Your task to perform on an android device: clear history in the chrome app Image 0: 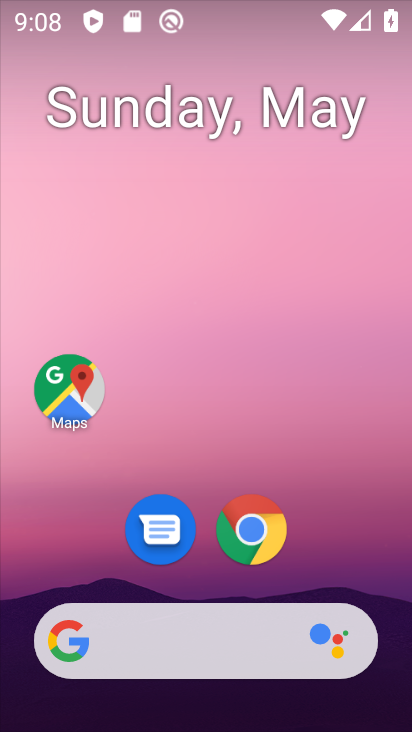
Step 0: click (259, 531)
Your task to perform on an android device: clear history in the chrome app Image 1: 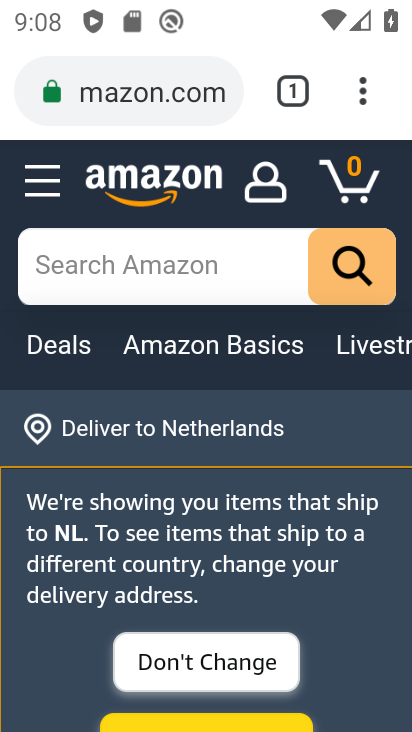
Step 1: click (350, 98)
Your task to perform on an android device: clear history in the chrome app Image 2: 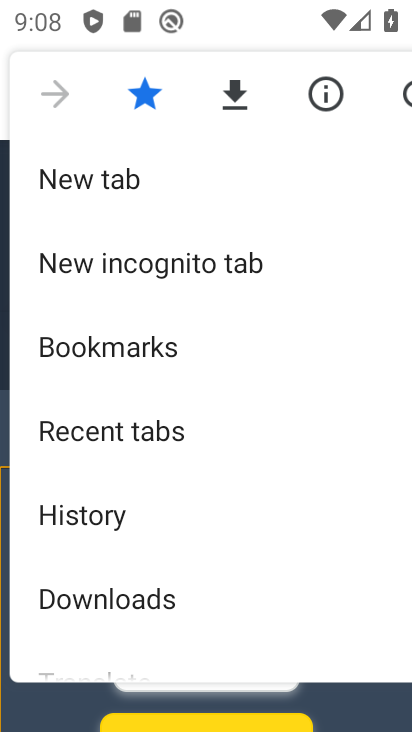
Step 2: drag from (184, 576) to (211, 155)
Your task to perform on an android device: clear history in the chrome app Image 3: 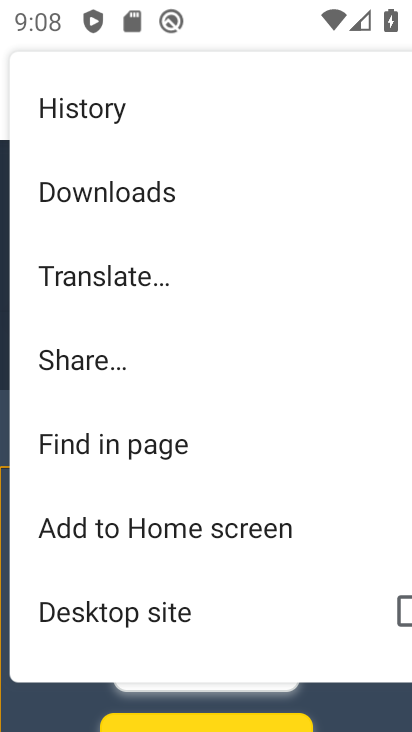
Step 3: drag from (143, 624) to (179, 271)
Your task to perform on an android device: clear history in the chrome app Image 4: 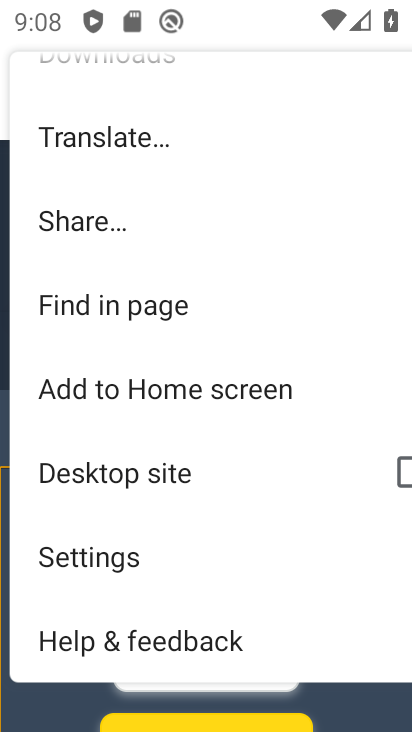
Step 4: drag from (133, 565) to (216, 345)
Your task to perform on an android device: clear history in the chrome app Image 5: 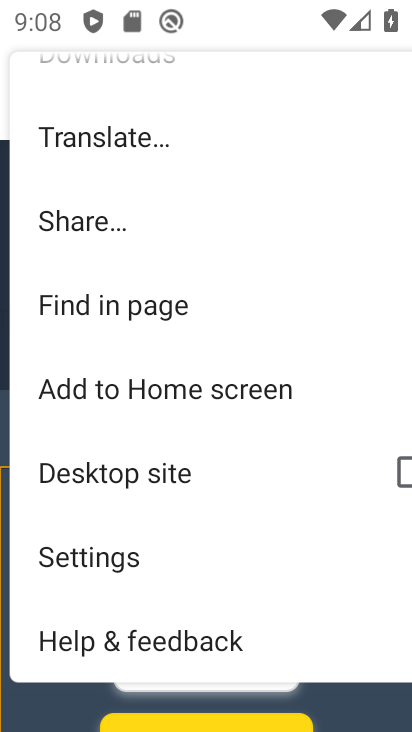
Step 5: click (121, 559)
Your task to perform on an android device: clear history in the chrome app Image 6: 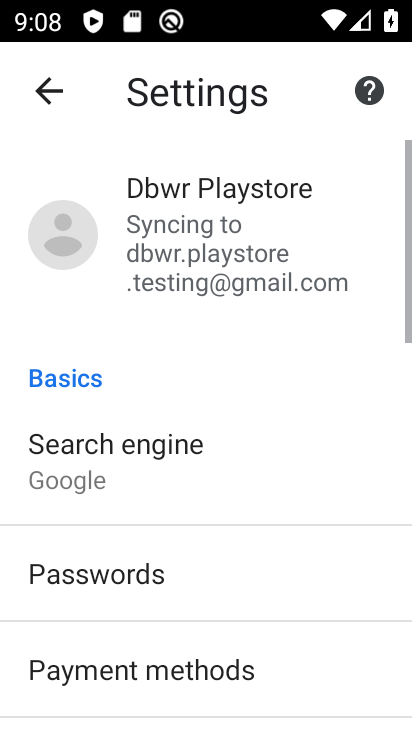
Step 6: drag from (225, 624) to (264, 199)
Your task to perform on an android device: clear history in the chrome app Image 7: 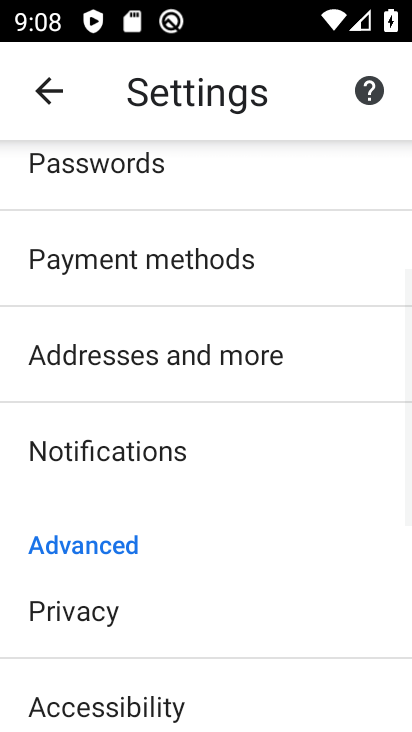
Step 7: click (142, 625)
Your task to perform on an android device: clear history in the chrome app Image 8: 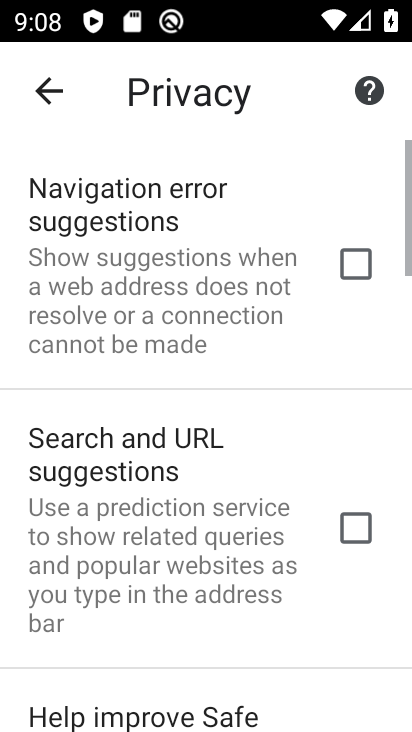
Step 8: drag from (236, 631) to (295, 133)
Your task to perform on an android device: clear history in the chrome app Image 9: 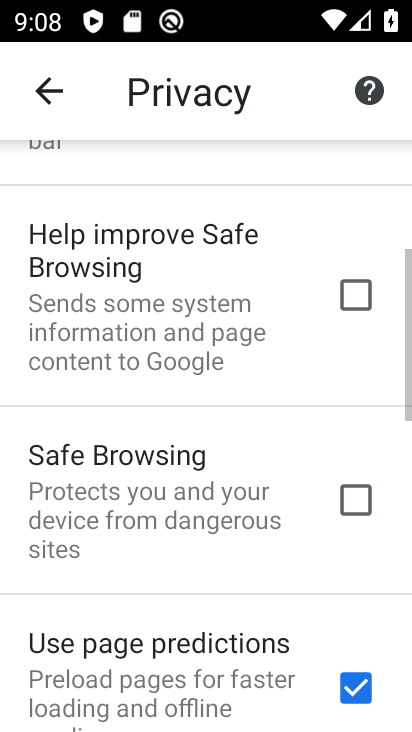
Step 9: drag from (264, 634) to (270, 112)
Your task to perform on an android device: clear history in the chrome app Image 10: 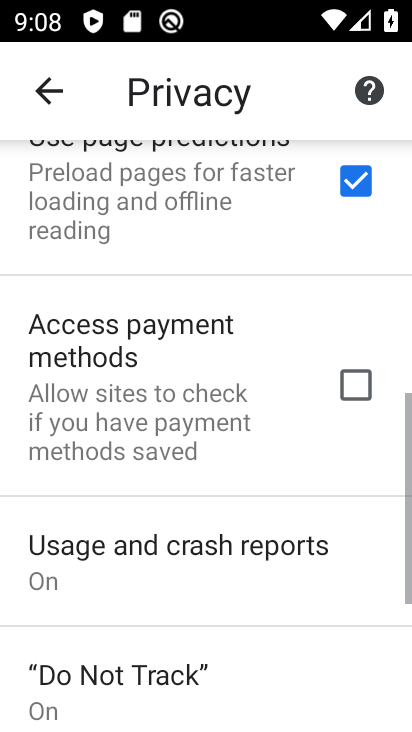
Step 10: drag from (171, 709) to (201, 395)
Your task to perform on an android device: clear history in the chrome app Image 11: 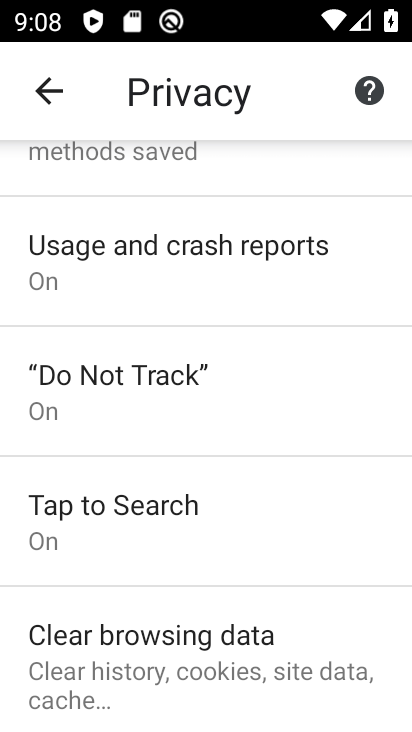
Step 11: click (169, 627)
Your task to perform on an android device: clear history in the chrome app Image 12: 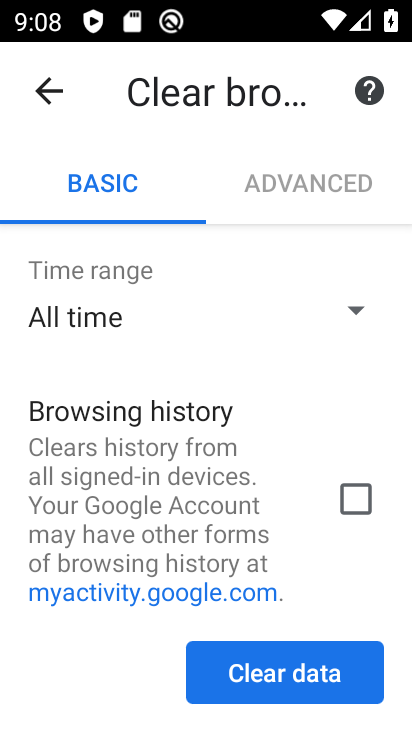
Step 12: click (358, 499)
Your task to perform on an android device: clear history in the chrome app Image 13: 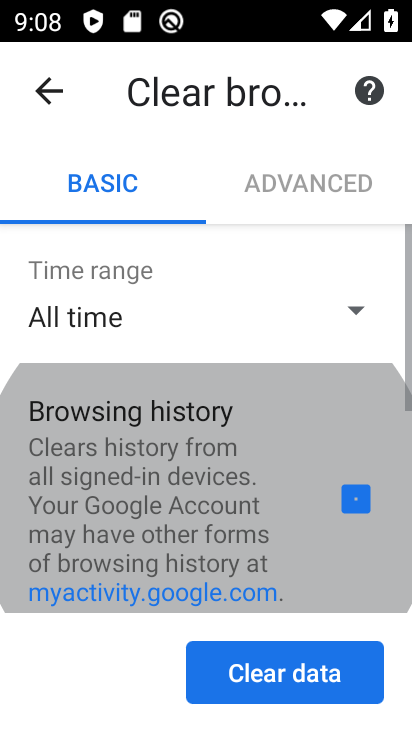
Step 13: drag from (267, 591) to (276, 260)
Your task to perform on an android device: clear history in the chrome app Image 14: 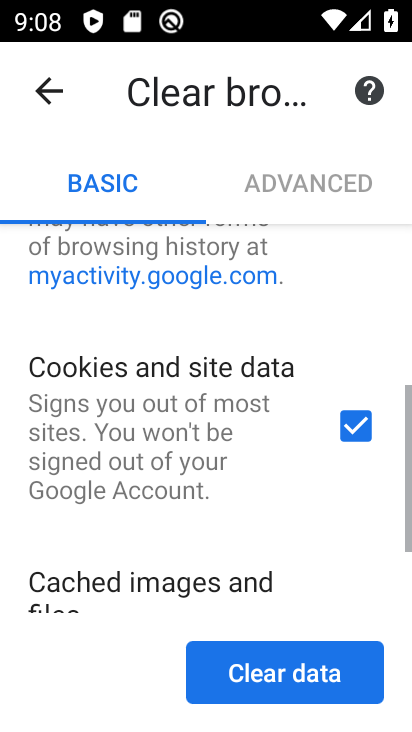
Step 14: drag from (240, 503) to (252, 223)
Your task to perform on an android device: clear history in the chrome app Image 15: 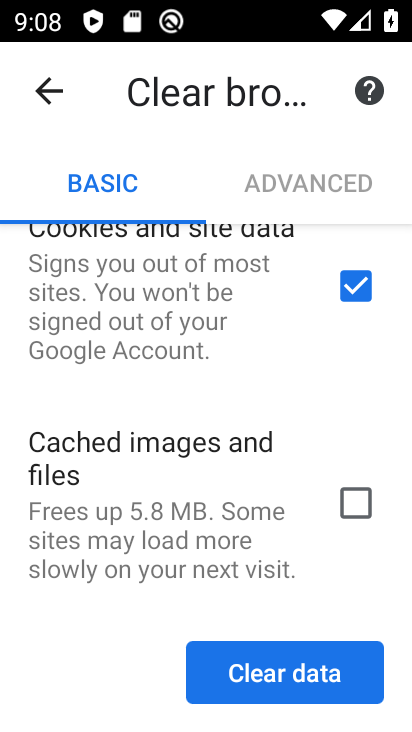
Step 15: drag from (193, 371) to (233, 572)
Your task to perform on an android device: clear history in the chrome app Image 16: 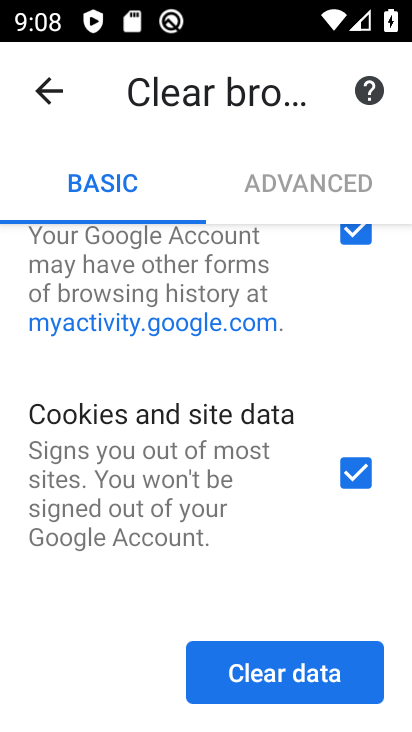
Step 16: click (363, 481)
Your task to perform on an android device: clear history in the chrome app Image 17: 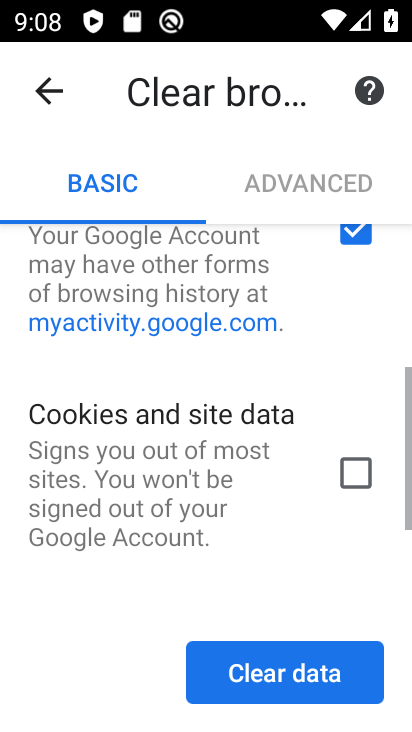
Step 17: drag from (261, 483) to (183, 131)
Your task to perform on an android device: clear history in the chrome app Image 18: 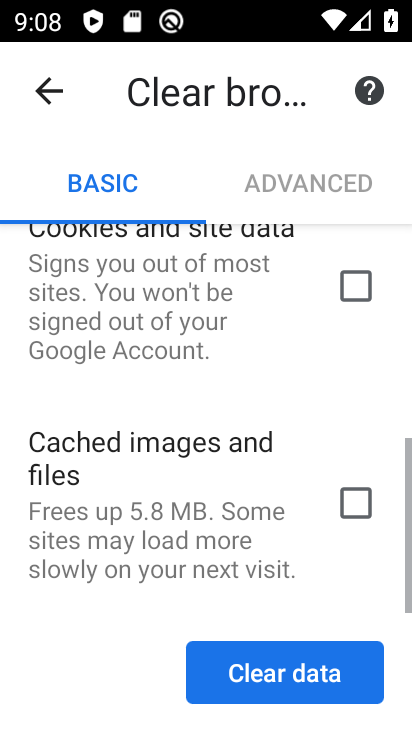
Step 18: drag from (256, 493) to (237, 288)
Your task to perform on an android device: clear history in the chrome app Image 19: 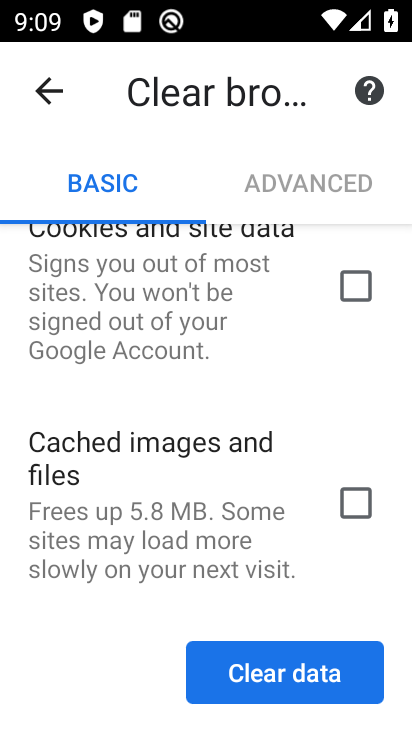
Step 19: click (296, 672)
Your task to perform on an android device: clear history in the chrome app Image 20: 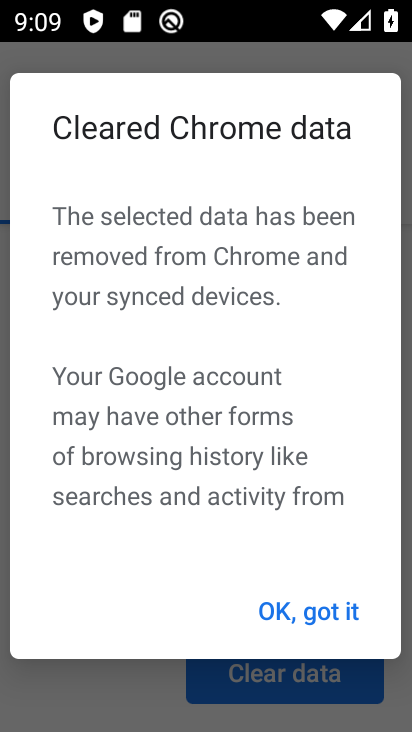
Step 20: click (305, 619)
Your task to perform on an android device: clear history in the chrome app Image 21: 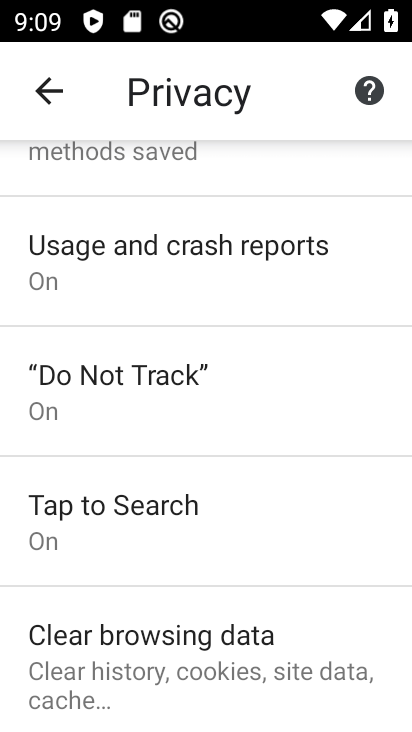
Step 21: task complete